Your task to perform on an android device: Toggle the flashlight Image 0: 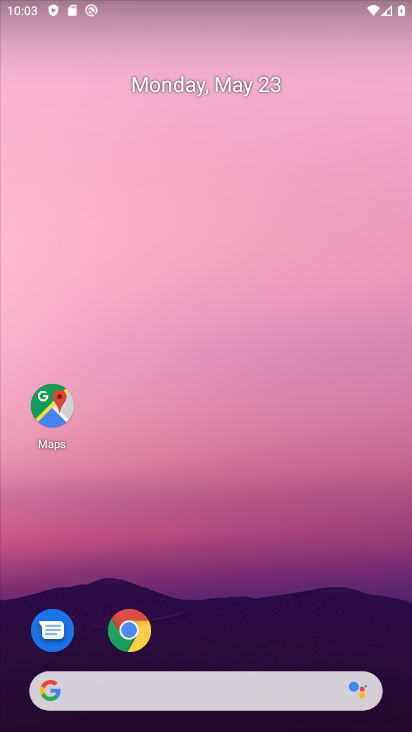
Step 0: drag from (214, 1) to (197, 627)
Your task to perform on an android device: Toggle the flashlight Image 1: 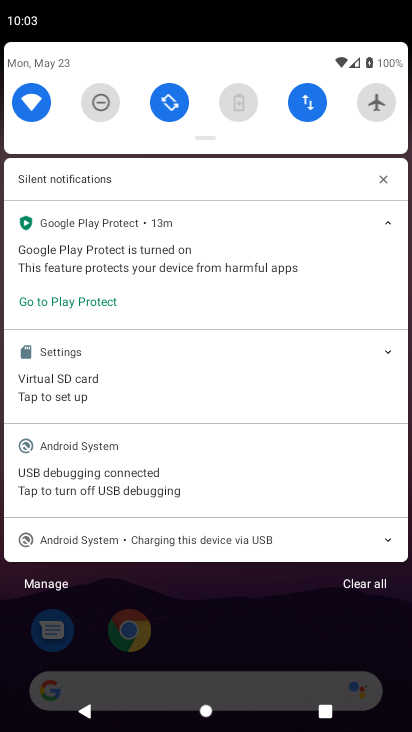
Step 1: task complete